Your task to perform on an android device: Open maps Image 0: 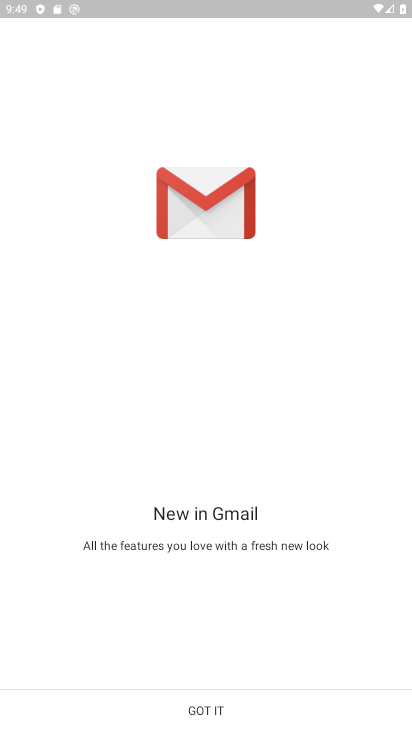
Step 0: press home button
Your task to perform on an android device: Open maps Image 1: 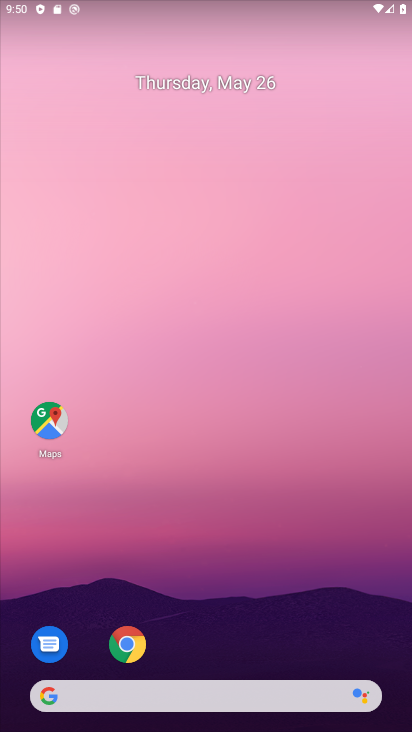
Step 1: drag from (355, 541) to (359, 225)
Your task to perform on an android device: Open maps Image 2: 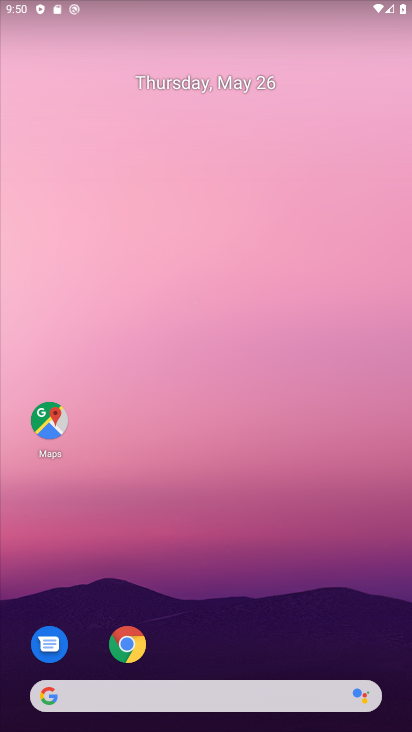
Step 2: drag from (341, 612) to (341, 251)
Your task to perform on an android device: Open maps Image 3: 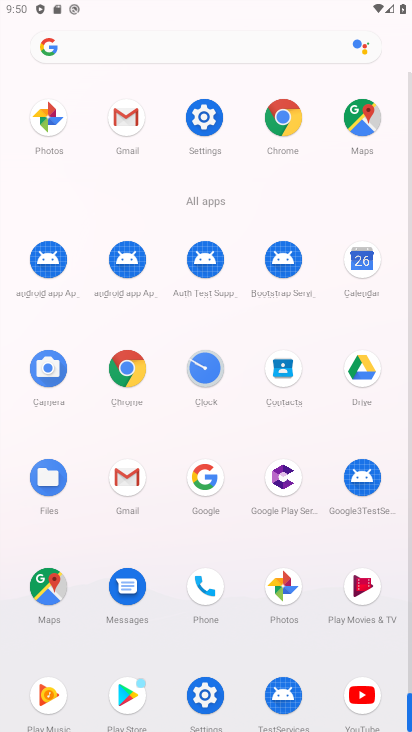
Step 3: click (46, 602)
Your task to perform on an android device: Open maps Image 4: 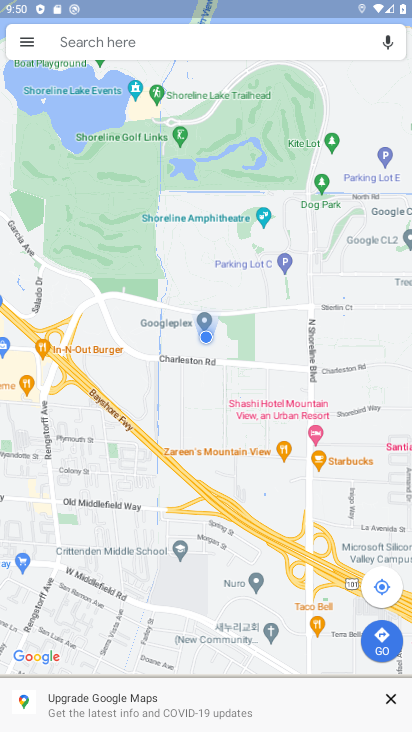
Step 4: task complete